Your task to perform on an android device: open app "NewsBreak: Local News & Alerts" (install if not already installed) Image 0: 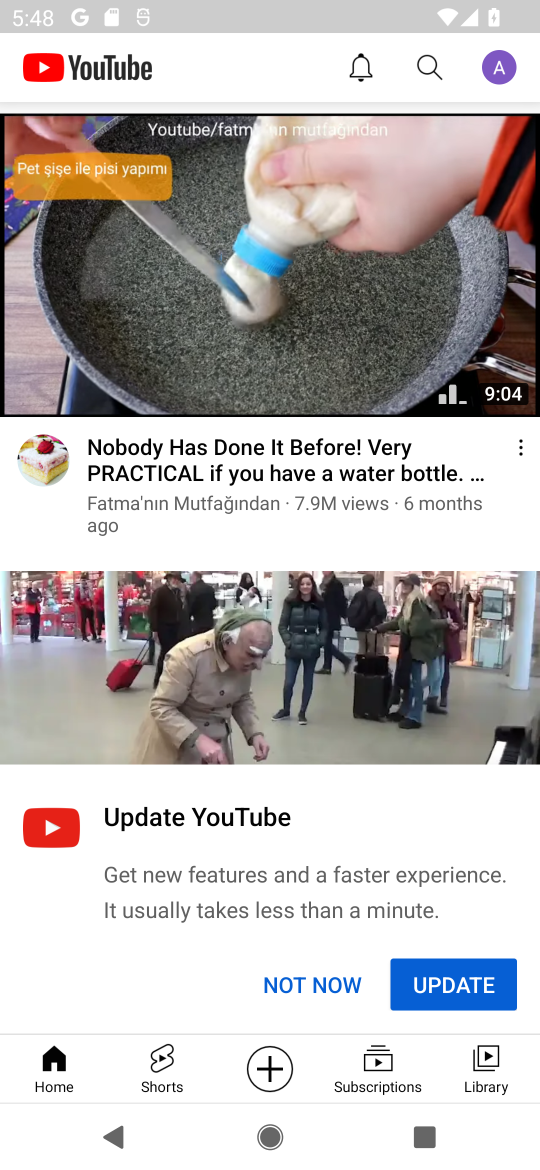
Step 0: press home button
Your task to perform on an android device: open app "NewsBreak: Local News & Alerts" (install if not already installed) Image 1: 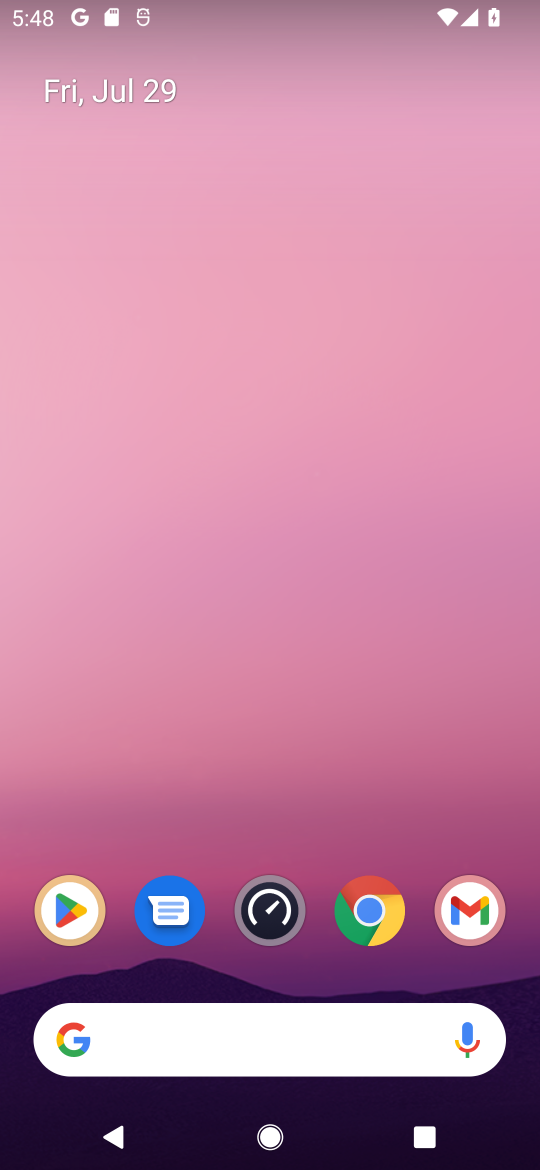
Step 1: click (48, 913)
Your task to perform on an android device: open app "NewsBreak: Local News & Alerts" (install if not already installed) Image 2: 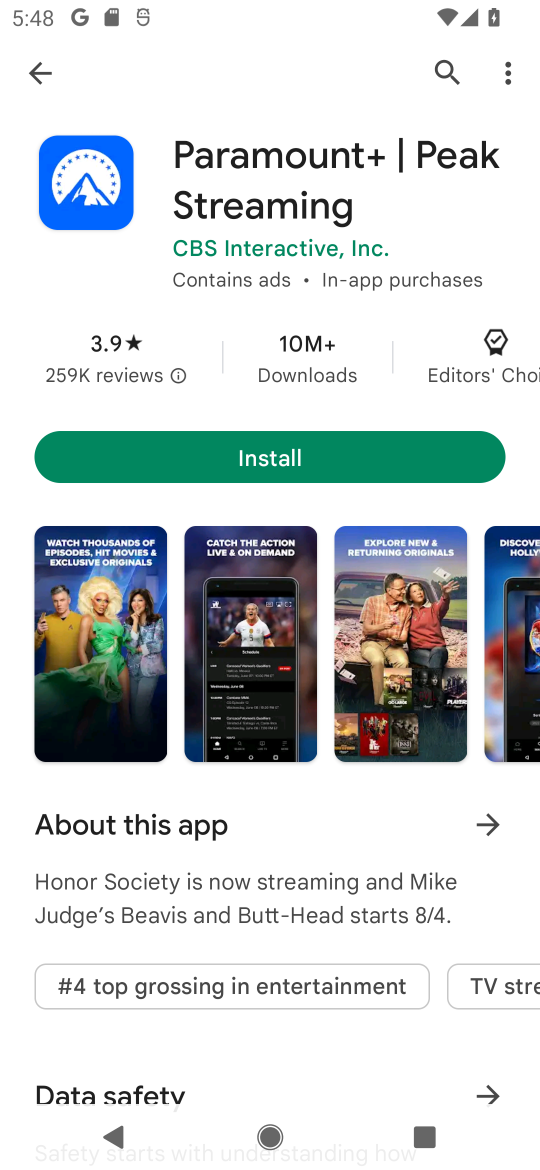
Step 2: click (449, 71)
Your task to perform on an android device: open app "NewsBreak: Local News & Alerts" (install if not already installed) Image 3: 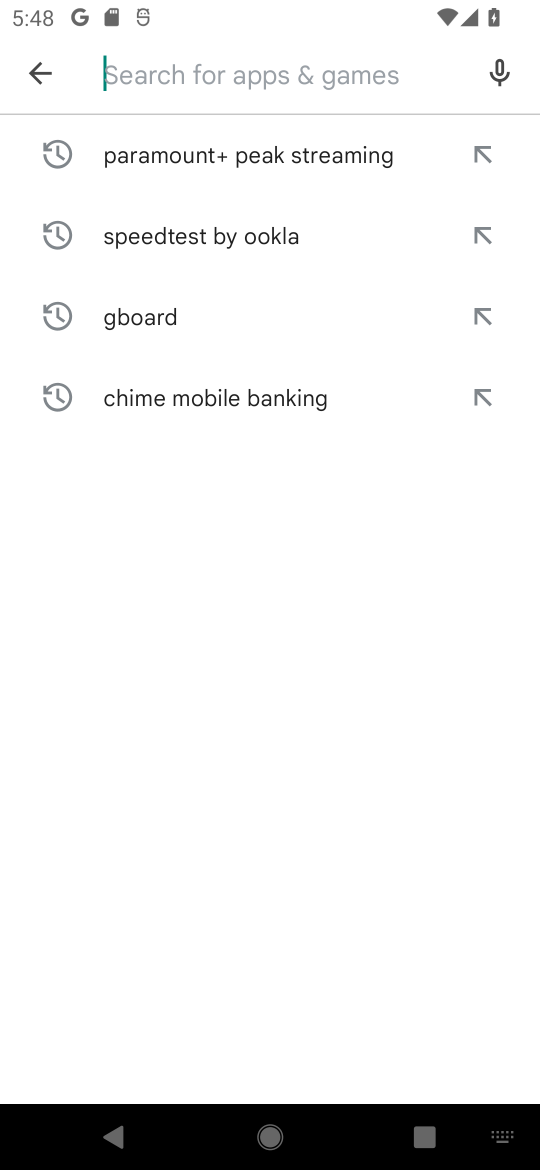
Step 3: type "newsbreak: local news & alerts"
Your task to perform on an android device: open app "NewsBreak: Local News & Alerts" (install if not already installed) Image 4: 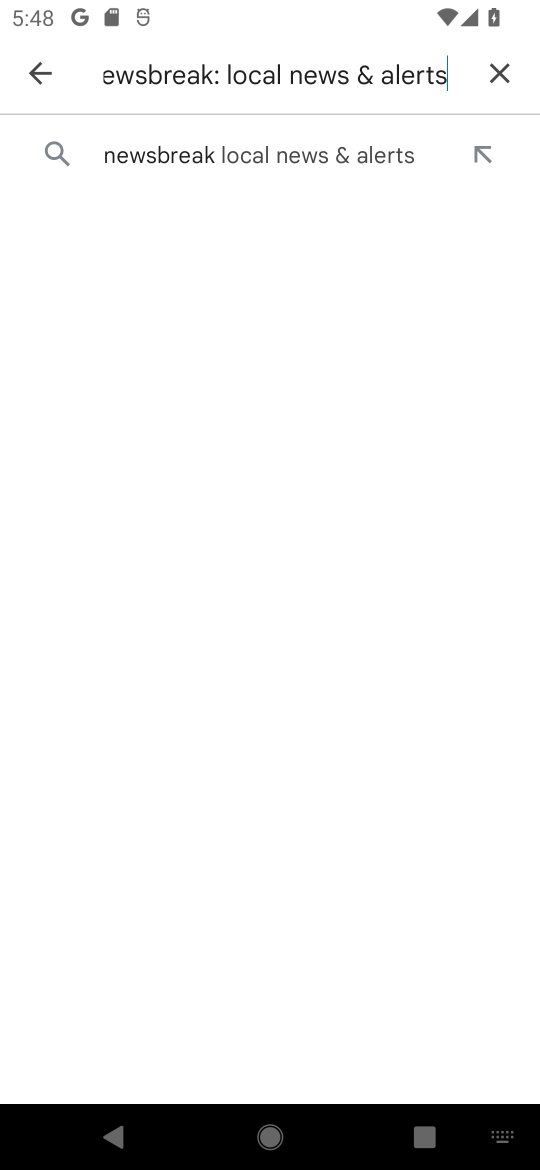
Step 4: click (345, 144)
Your task to perform on an android device: open app "NewsBreak: Local News & Alerts" (install if not already installed) Image 5: 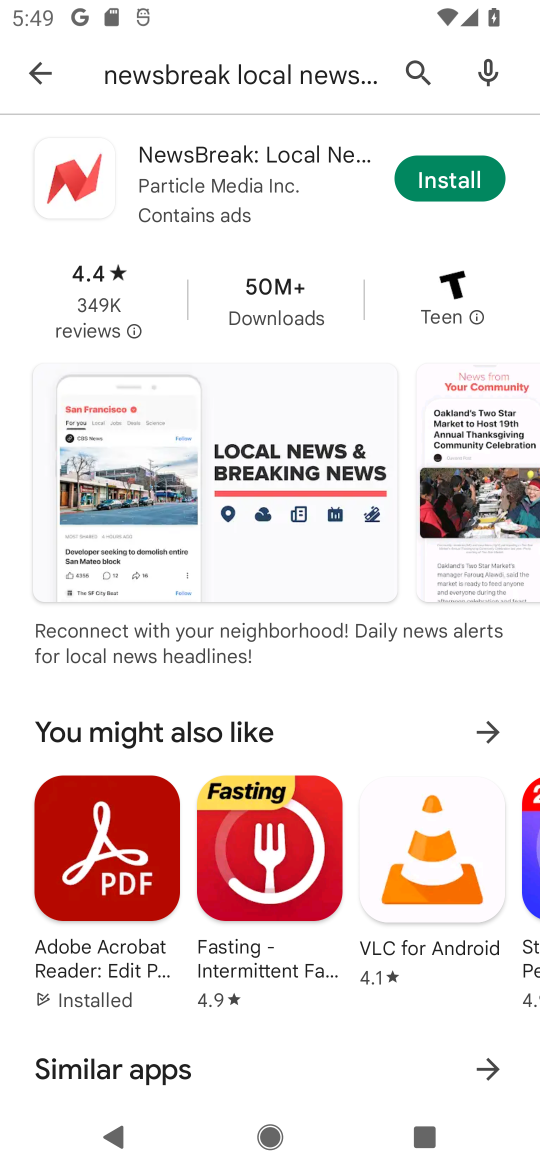
Step 5: click (345, 144)
Your task to perform on an android device: open app "NewsBreak: Local News & Alerts" (install if not already installed) Image 6: 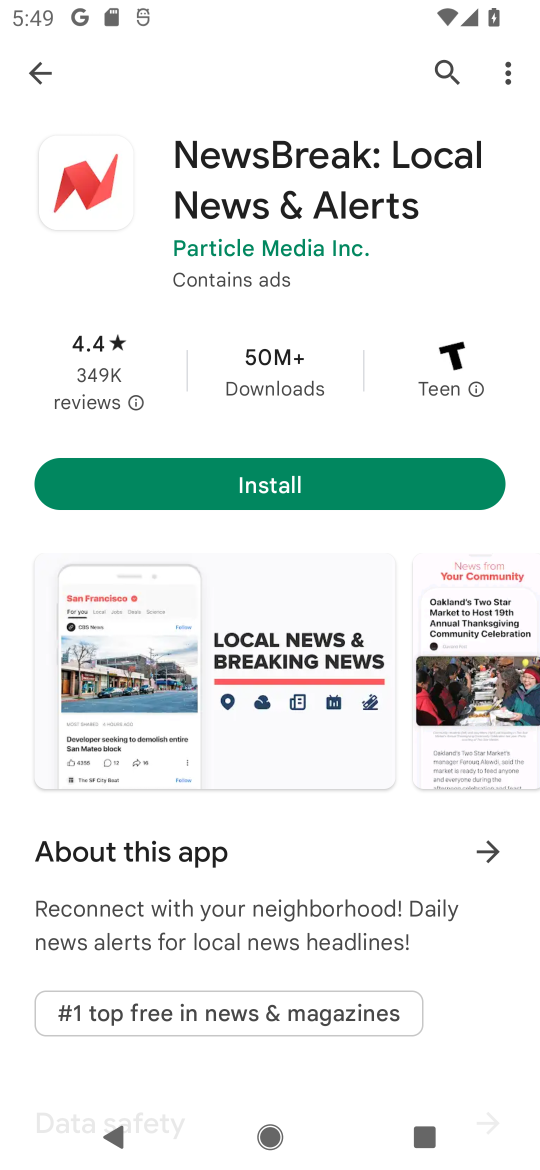
Step 6: click (310, 485)
Your task to perform on an android device: open app "NewsBreak: Local News & Alerts" (install if not already installed) Image 7: 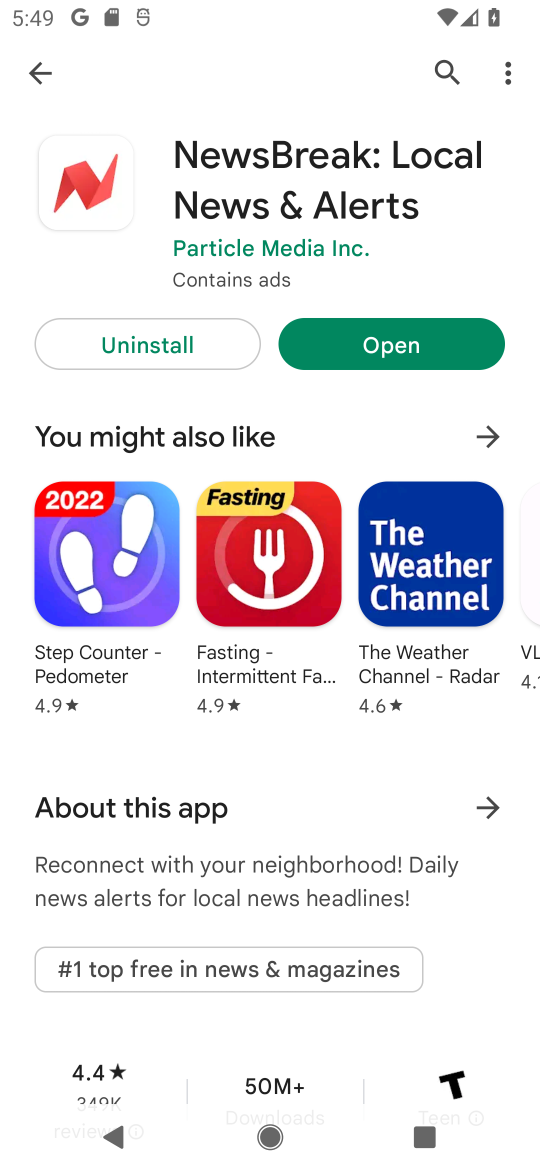
Step 7: click (427, 341)
Your task to perform on an android device: open app "NewsBreak: Local News & Alerts" (install if not already installed) Image 8: 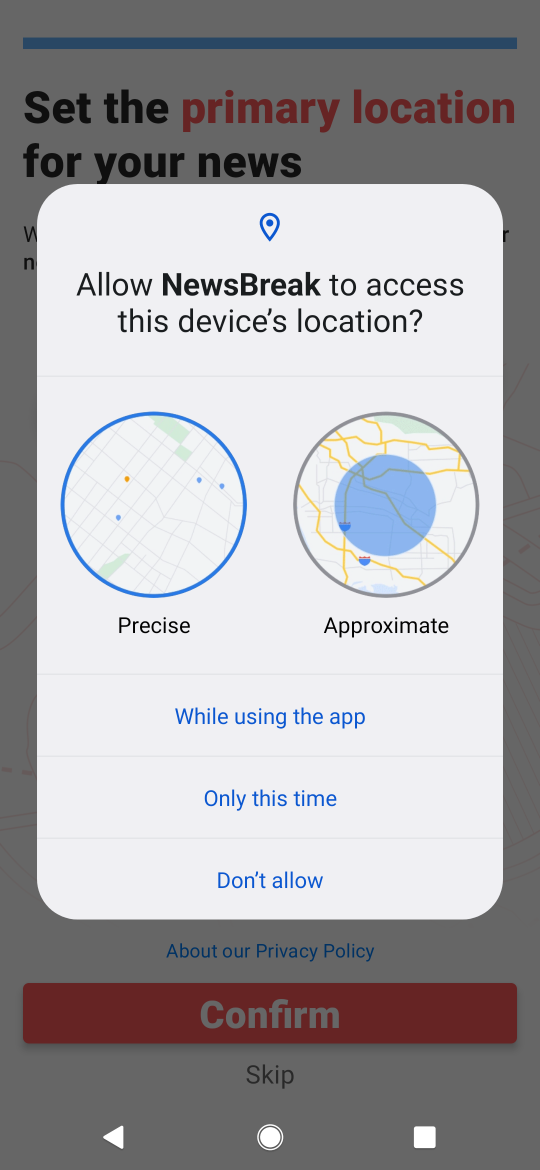
Step 8: task complete